Your task to perform on an android device: Open notification settings Image 0: 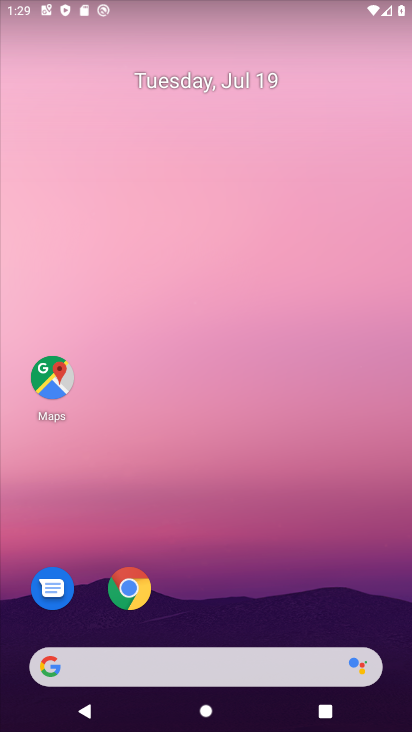
Step 0: drag from (87, 546) to (231, 136)
Your task to perform on an android device: Open notification settings Image 1: 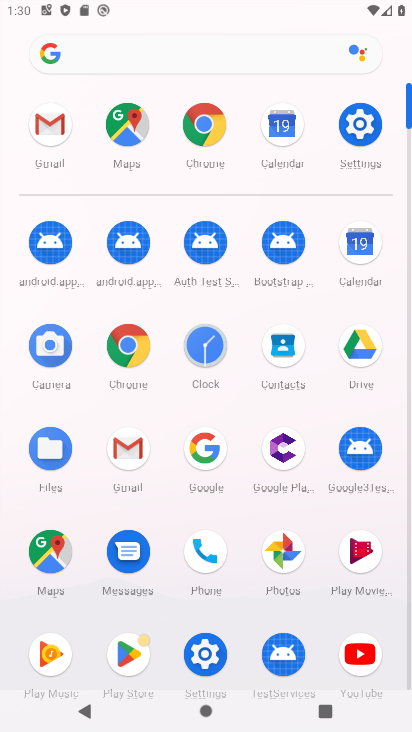
Step 1: click (199, 649)
Your task to perform on an android device: Open notification settings Image 2: 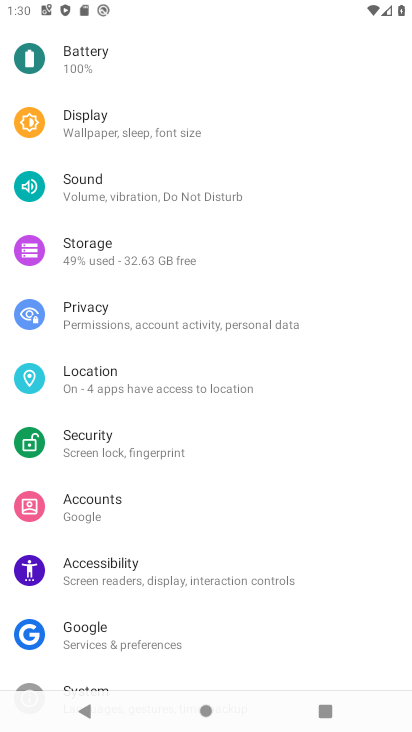
Step 2: drag from (323, 536) to (348, 6)
Your task to perform on an android device: Open notification settings Image 3: 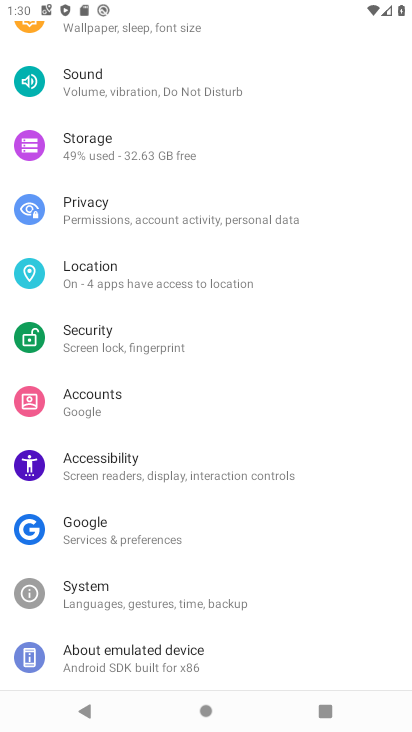
Step 3: drag from (329, 46) to (295, 721)
Your task to perform on an android device: Open notification settings Image 4: 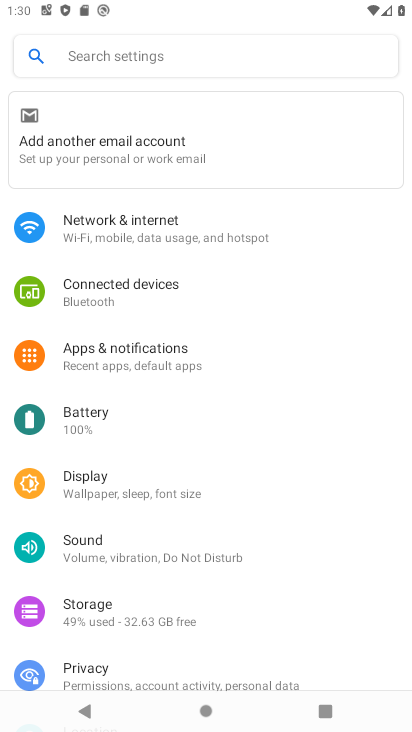
Step 4: click (151, 367)
Your task to perform on an android device: Open notification settings Image 5: 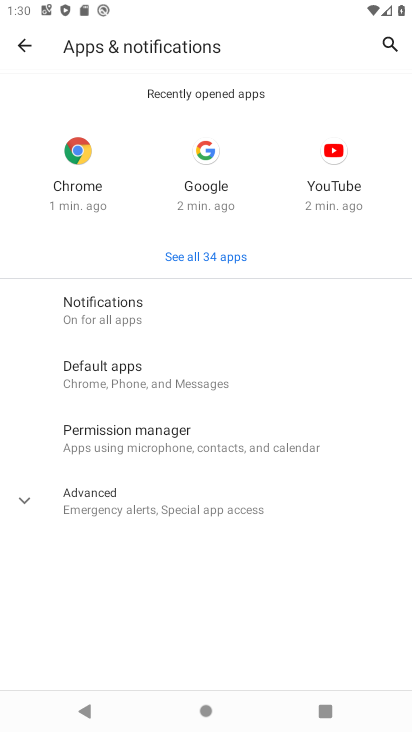
Step 5: task complete